Your task to perform on an android device: Show me popular videos on Youtube Image 0: 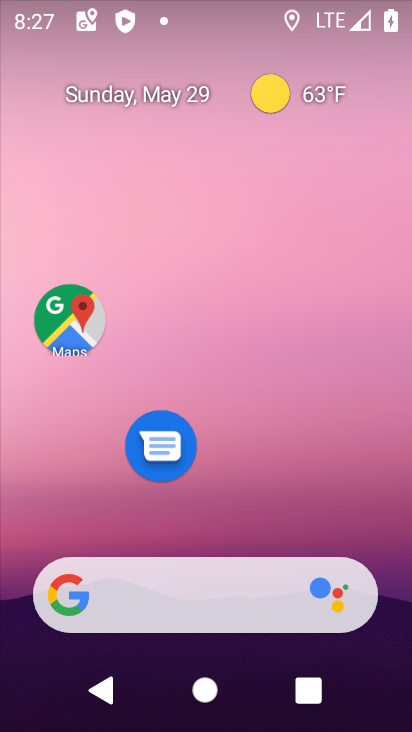
Step 0: drag from (188, 526) to (131, 196)
Your task to perform on an android device: Show me popular videos on Youtube Image 1: 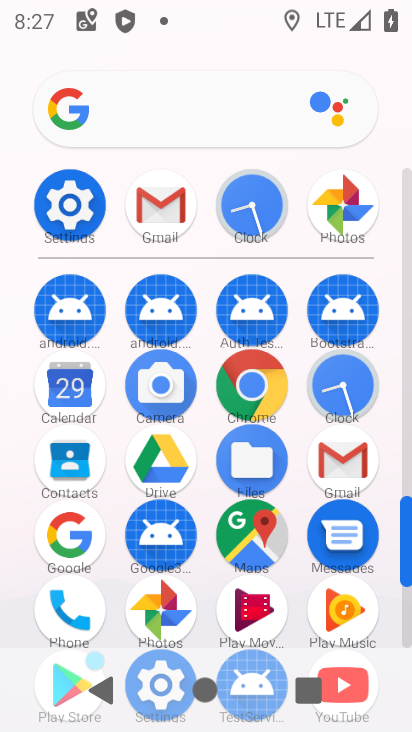
Step 1: drag from (295, 551) to (305, 293)
Your task to perform on an android device: Show me popular videos on Youtube Image 2: 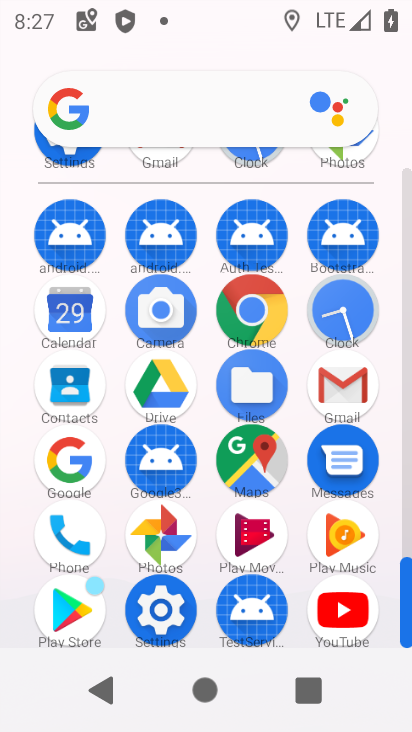
Step 2: click (320, 591)
Your task to perform on an android device: Show me popular videos on Youtube Image 3: 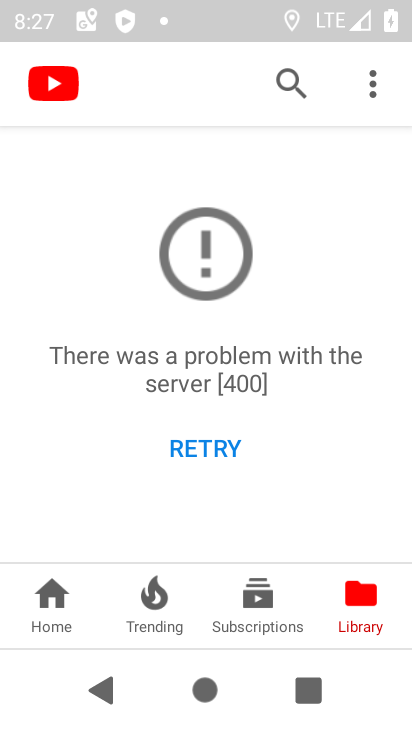
Step 3: click (360, 102)
Your task to perform on an android device: Show me popular videos on Youtube Image 4: 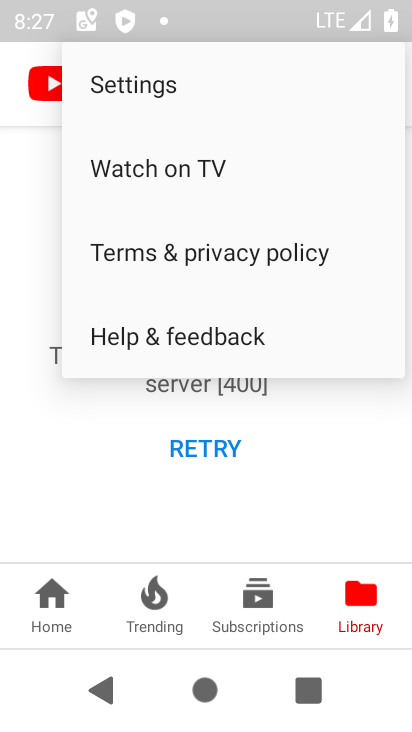
Step 4: click (289, 493)
Your task to perform on an android device: Show me popular videos on Youtube Image 5: 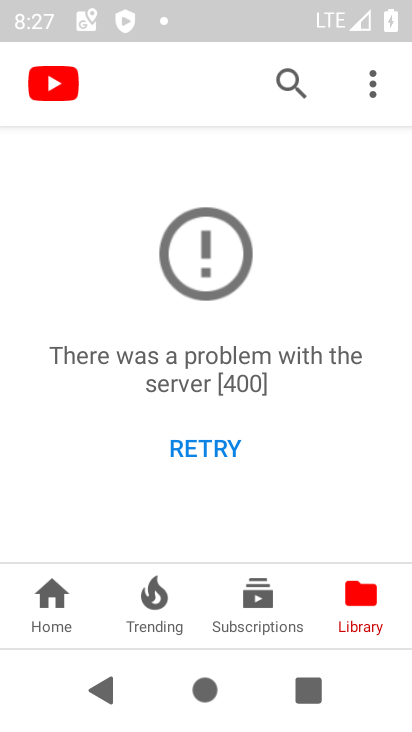
Step 5: click (279, 83)
Your task to perform on an android device: Show me popular videos on Youtube Image 6: 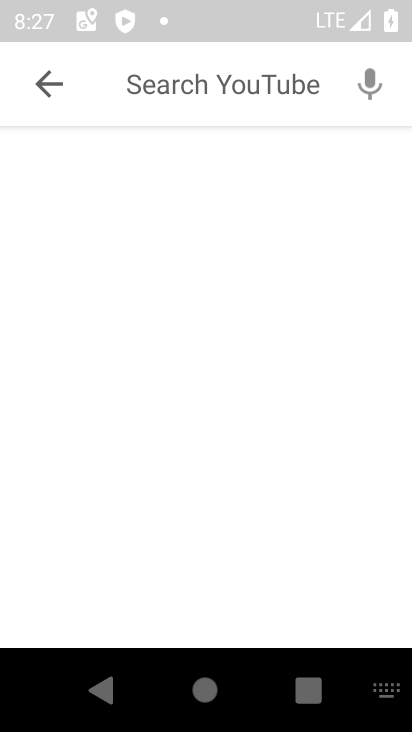
Step 6: type "popular videos"
Your task to perform on an android device: Show me popular videos on Youtube Image 7: 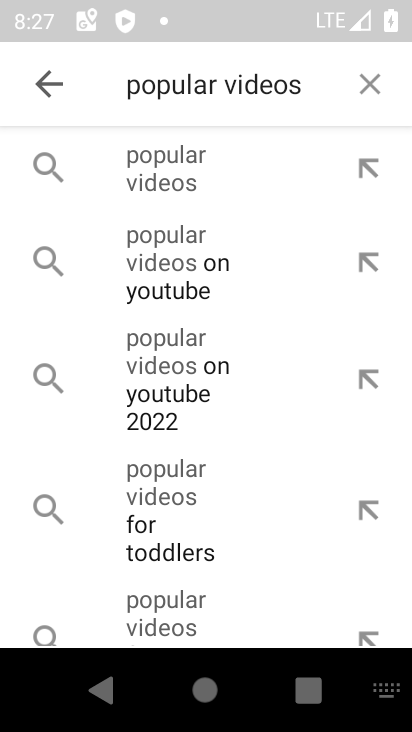
Step 7: click (232, 185)
Your task to perform on an android device: Show me popular videos on Youtube Image 8: 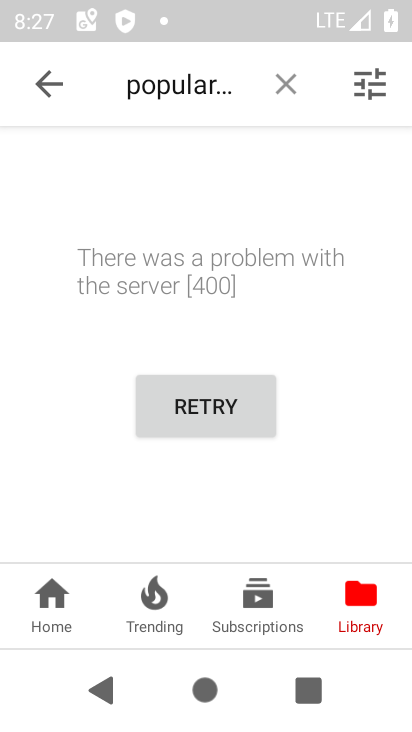
Step 8: task complete